Your task to perform on an android device: find which apps use the phone's location Image 0: 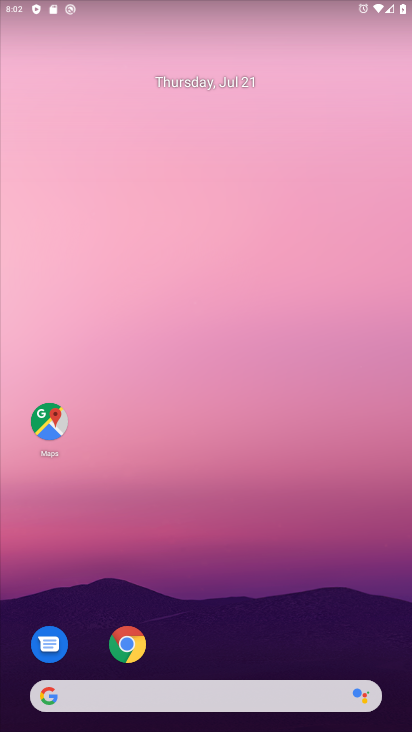
Step 0: drag from (317, 618) to (365, 219)
Your task to perform on an android device: find which apps use the phone's location Image 1: 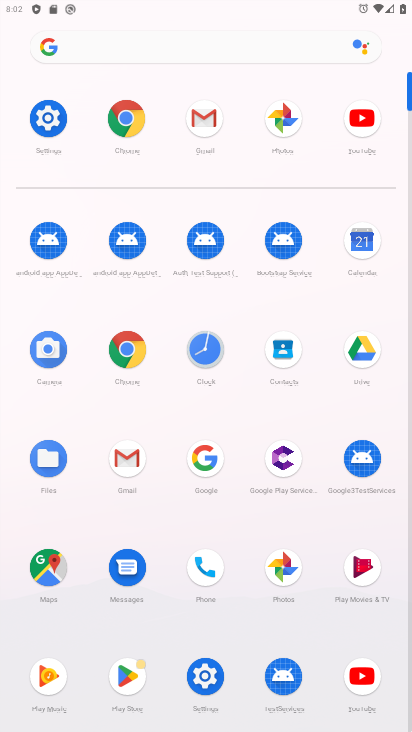
Step 1: click (54, 121)
Your task to perform on an android device: find which apps use the phone's location Image 2: 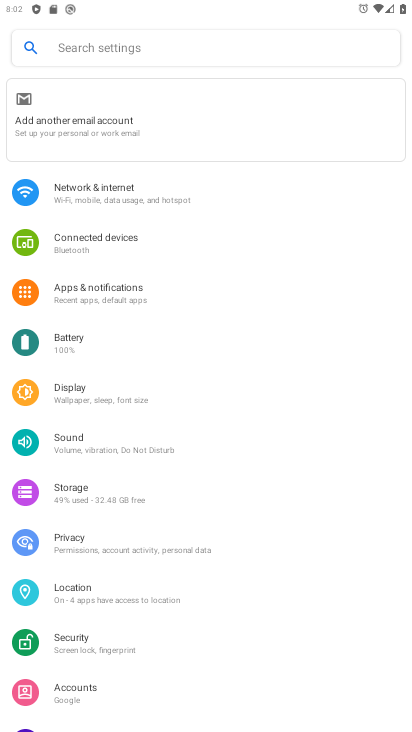
Step 2: drag from (321, 406) to (327, 353)
Your task to perform on an android device: find which apps use the phone's location Image 3: 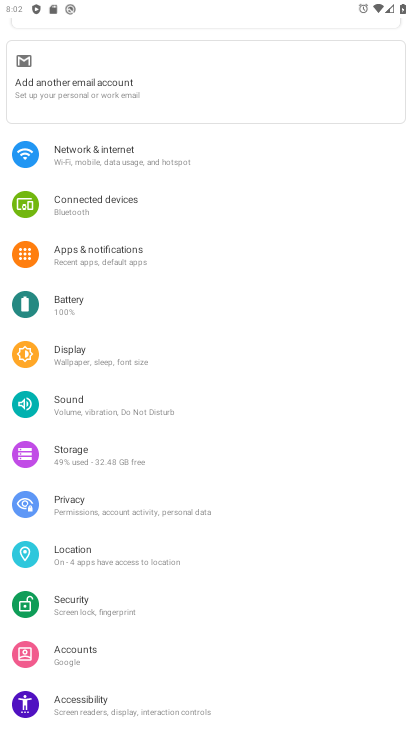
Step 3: drag from (351, 442) to (359, 364)
Your task to perform on an android device: find which apps use the phone's location Image 4: 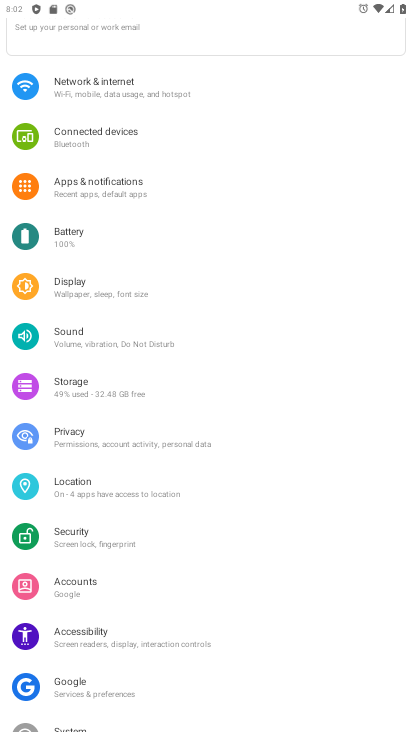
Step 4: drag from (329, 449) to (318, 359)
Your task to perform on an android device: find which apps use the phone's location Image 5: 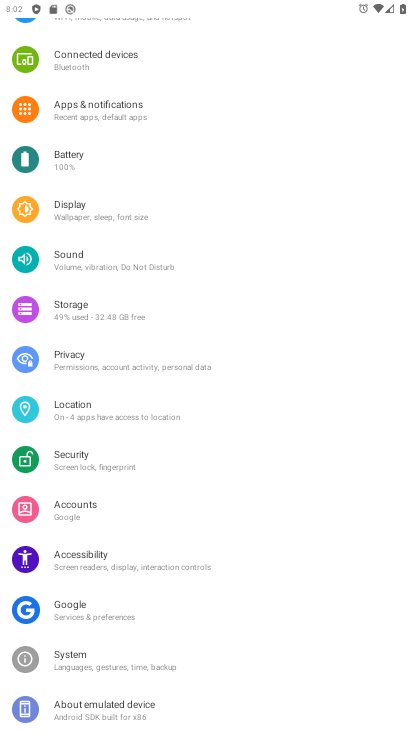
Step 5: drag from (303, 460) to (293, 347)
Your task to perform on an android device: find which apps use the phone's location Image 6: 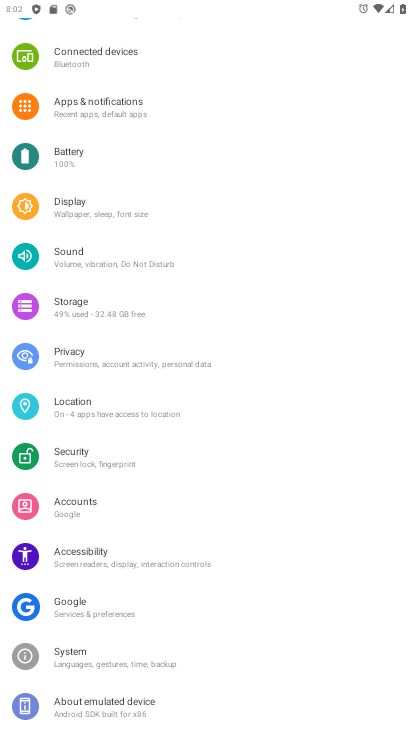
Step 6: click (196, 413)
Your task to perform on an android device: find which apps use the phone's location Image 7: 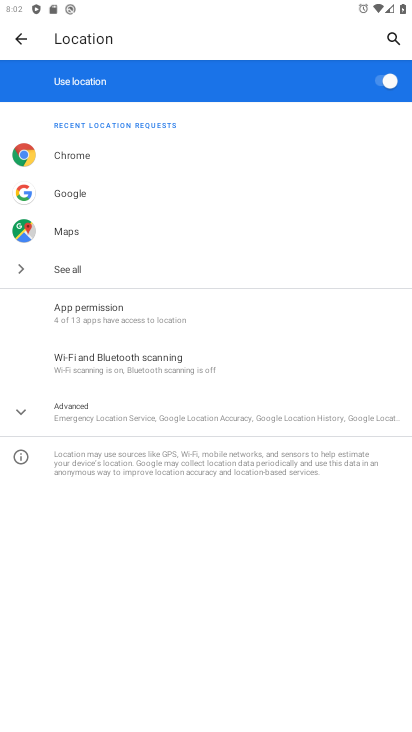
Step 7: click (168, 314)
Your task to perform on an android device: find which apps use the phone's location Image 8: 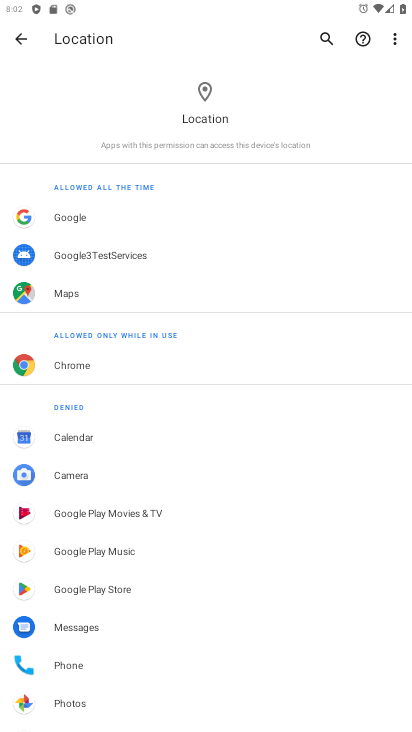
Step 8: drag from (244, 449) to (251, 354)
Your task to perform on an android device: find which apps use the phone's location Image 9: 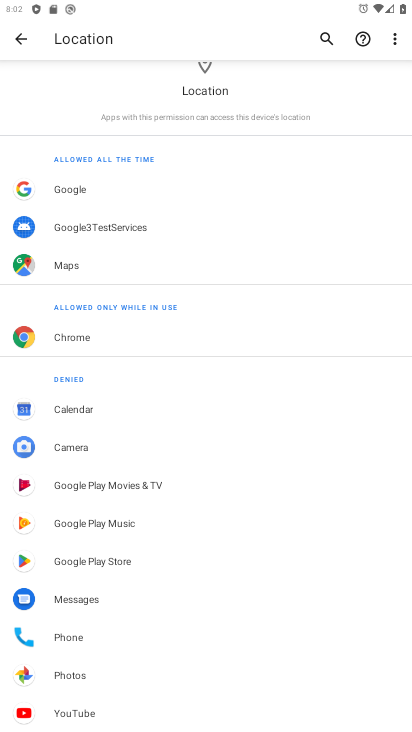
Step 9: click (130, 676)
Your task to perform on an android device: find which apps use the phone's location Image 10: 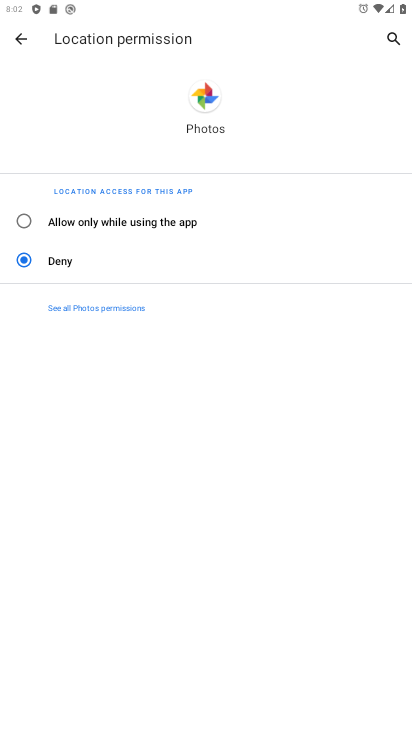
Step 10: click (137, 215)
Your task to perform on an android device: find which apps use the phone's location Image 11: 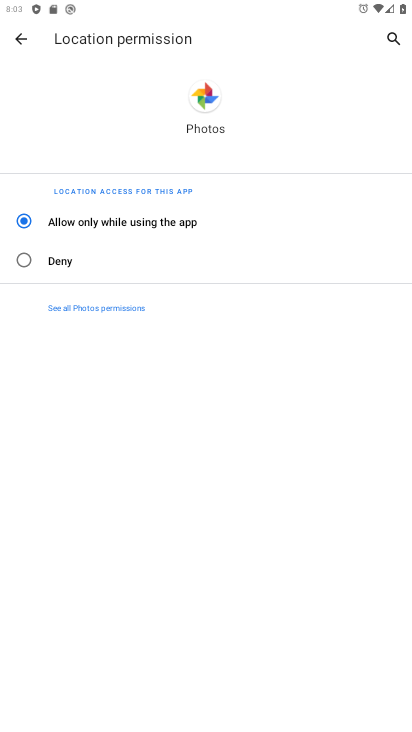
Step 11: task complete